Your task to perform on an android device: open wifi settings Image 0: 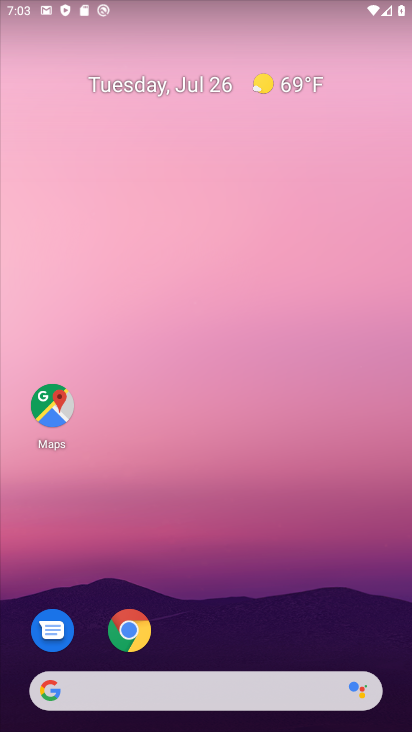
Step 0: drag from (190, 611) to (216, 242)
Your task to perform on an android device: open wifi settings Image 1: 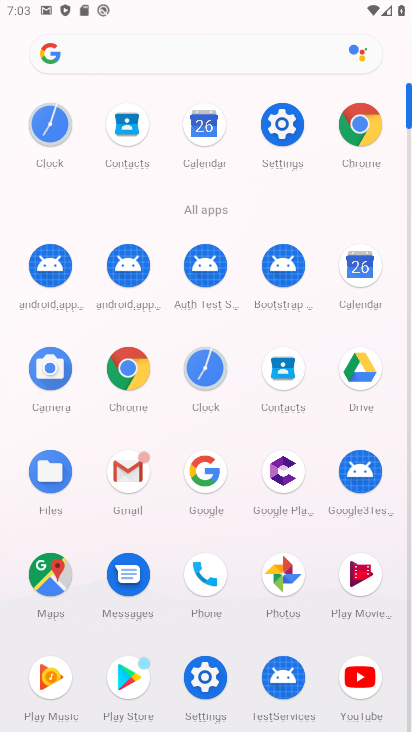
Step 1: click (292, 137)
Your task to perform on an android device: open wifi settings Image 2: 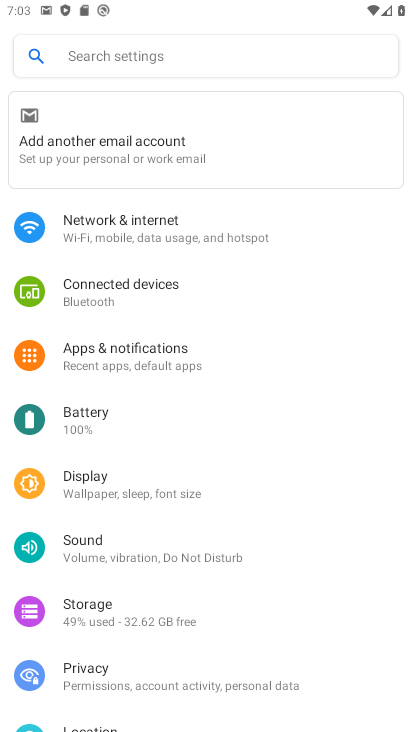
Step 2: click (166, 228)
Your task to perform on an android device: open wifi settings Image 3: 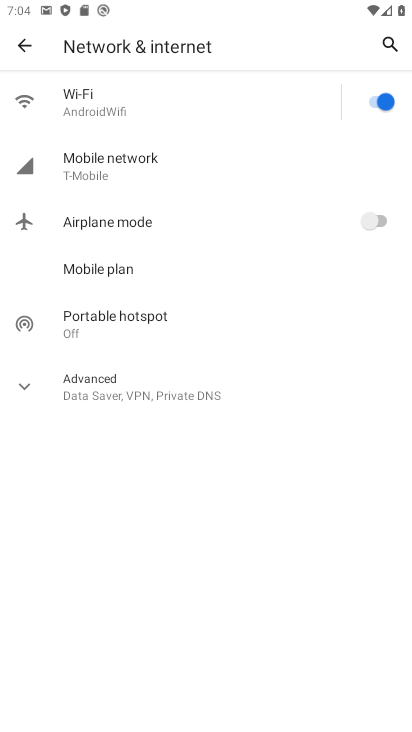
Step 3: click (228, 104)
Your task to perform on an android device: open wifi settings Image 4: 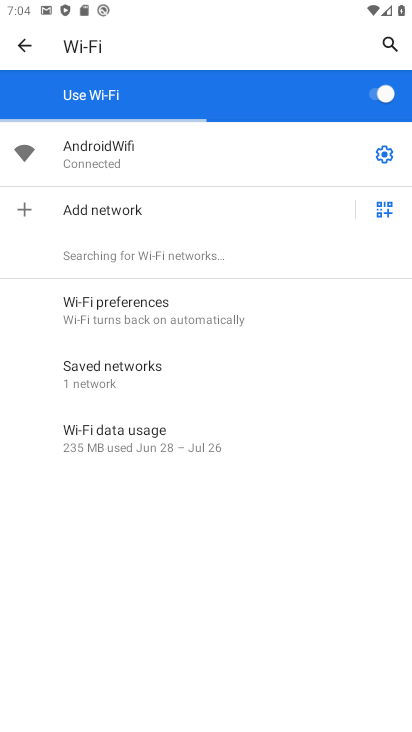
Step 4: task complete